Your task to perform on an android device: Search for sushi restaurants on Maps Image 0: 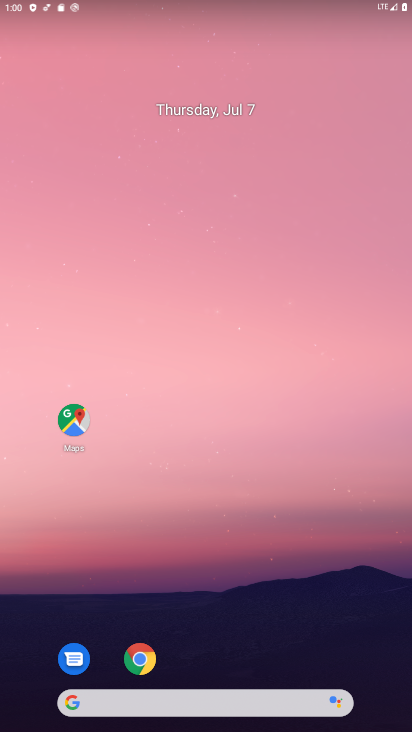
Step 0: click (73, 429)
Your task to perform on an android device: Search for sushi restaurants on Maps Image 1: 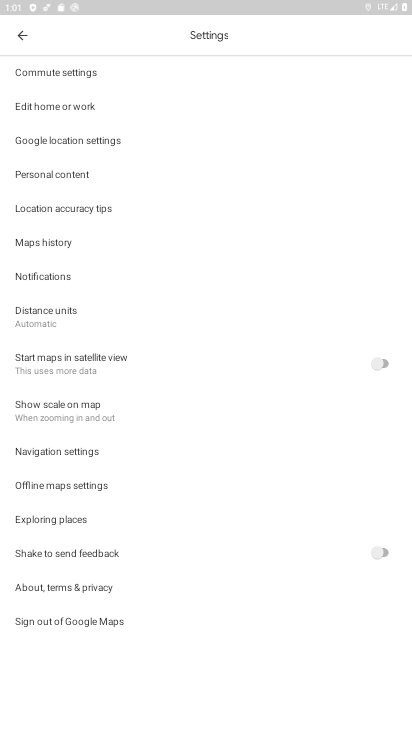
Step 1: click (14, 34)
Your task to perform on an android device: Search for sushi restaurants on Maps Image 2: 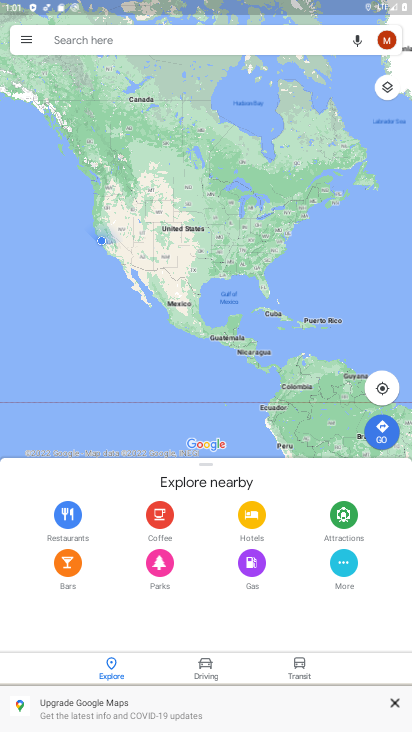
Step 2: click (199, 38)
Your task to perform on an android device: Search for sushi restaurants on Maps Image 3: 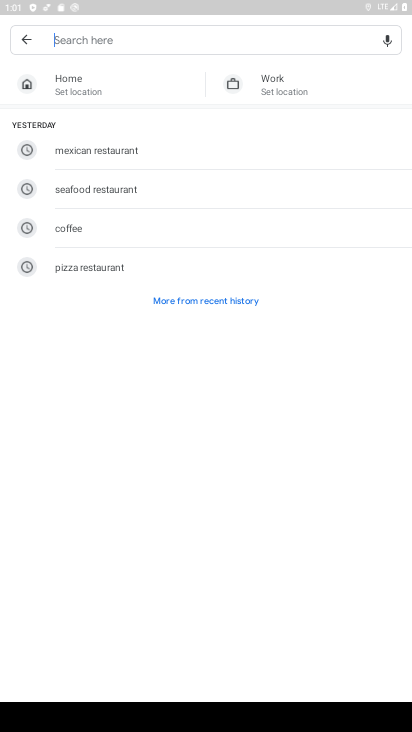
Step 3: type "sushi restaurants"
Your task to perform on an android device: Search for sushi restaurants on Maps Image 4: 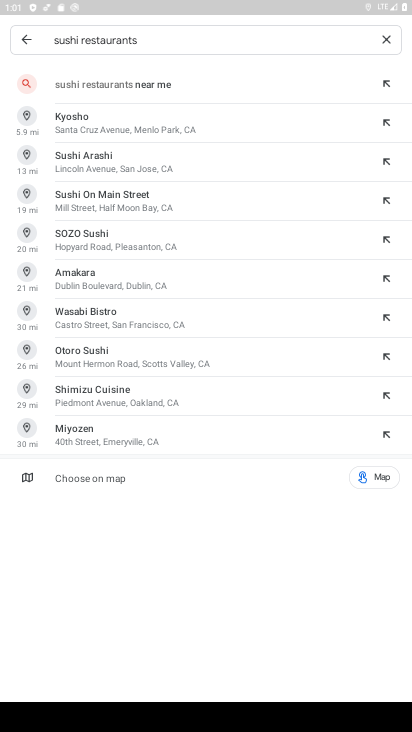
Step 4: click (122, 83)
Your task to perform on an android device: Search for sushi restaurants on Maps Image 5: 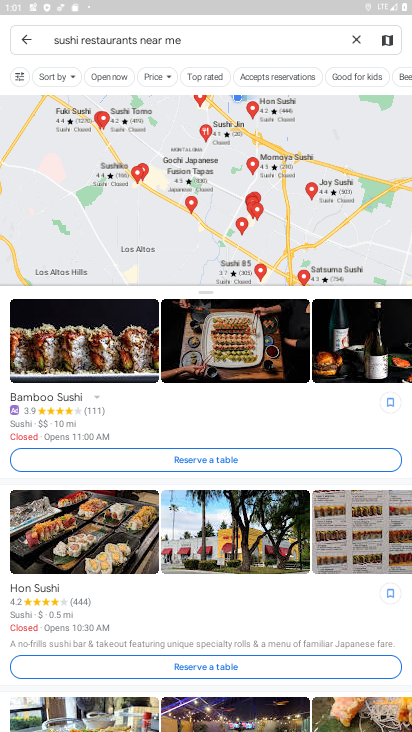
Step 5: task complete